Your task to perform on an android device: turn off javascript in the chrome app Image 0: 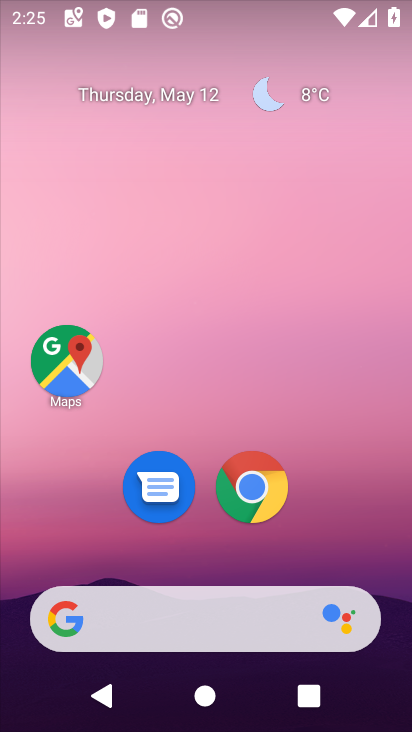
Step 0: click (256, 480)
Your task to perform on an android device: turn off javascript in the chrome app Image 1: 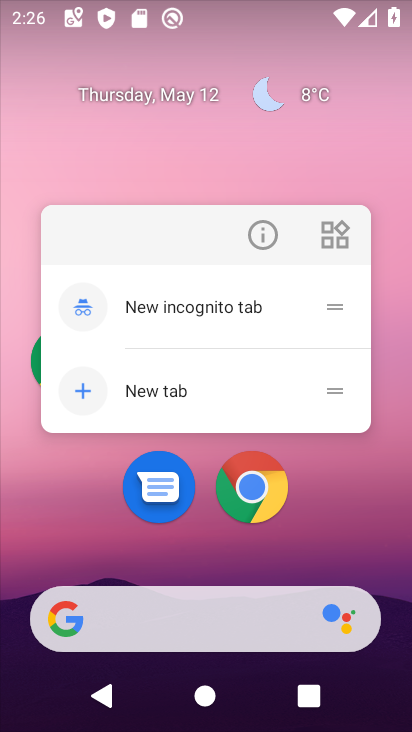
Step 1: click (259, 488)
Your task to perform on an android device: turn off javascript in the chrome app Image 2: 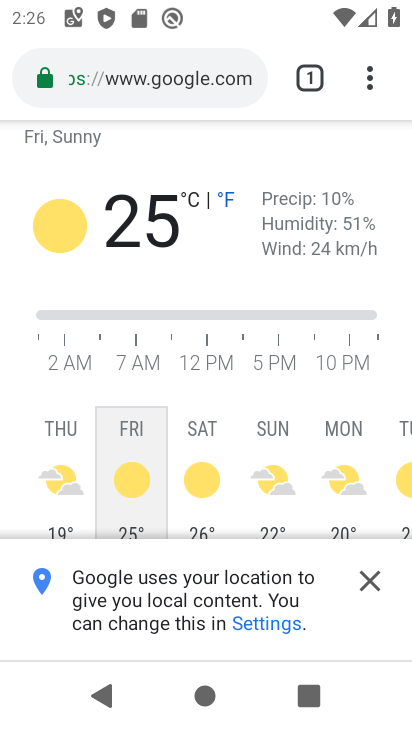
Step 2: drag from (370, 85) to (91, 549)
Your task to perform on an android device: turn off javascript in the chrome app Image 3: 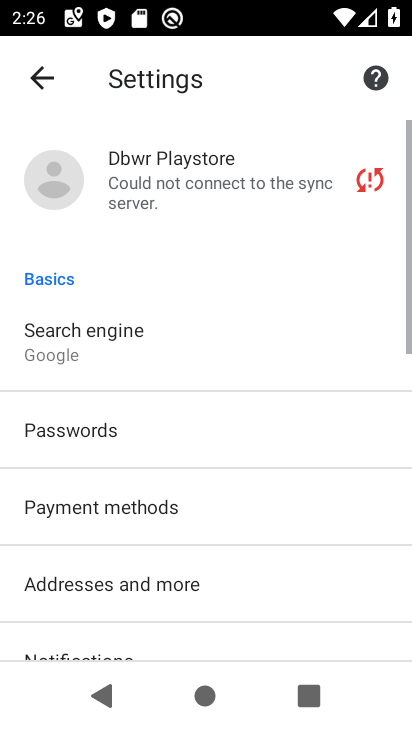
Step 3: drag from (283, 567) to (260, 132)
Your task to perform on an android device: turn off javascript in the chrome app Image 4: 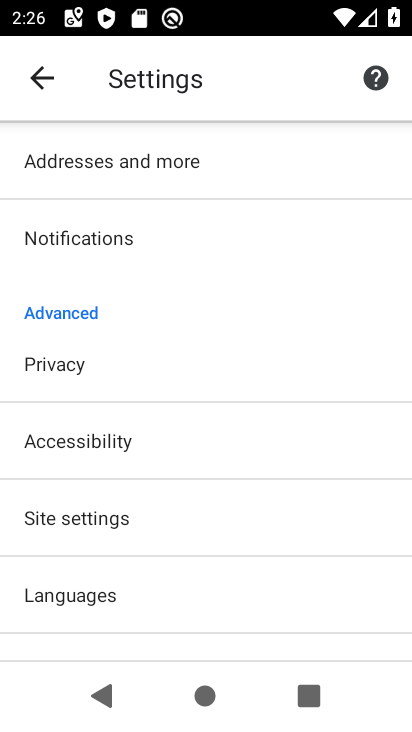
Step 4: click (103, 517)
Your task to perform on an android device: turn off javascript in the chrome app Image 5: 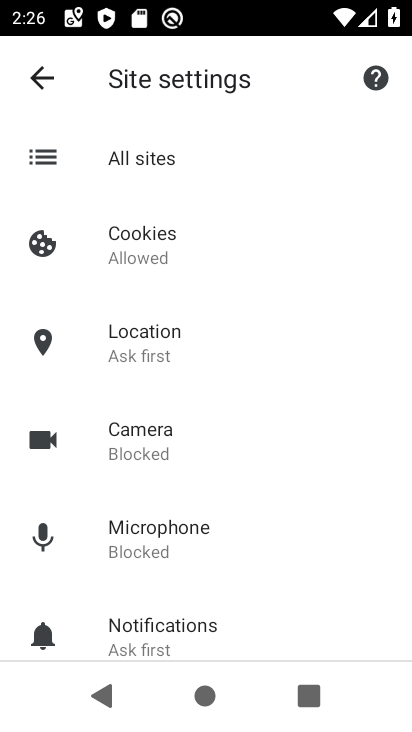
Step 5: drag from (252, 591) to (229, 173)
Your task to perform on an android device: turn off javascript in the chrome app Image 6: 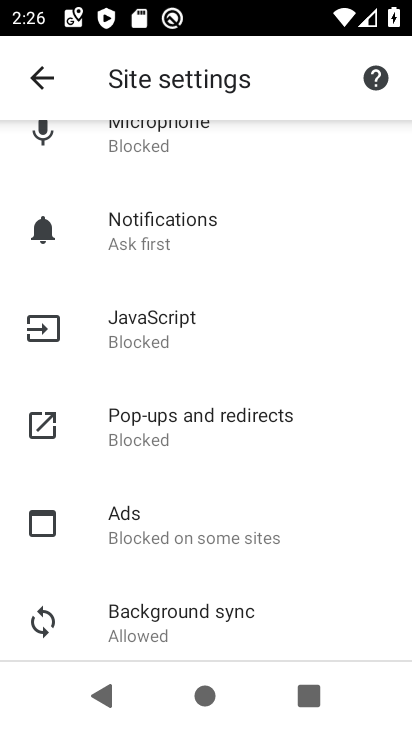
Step 6: click (152, 321)
Your task to perform on an android device: turn off javascript in the chrome app Image 7: 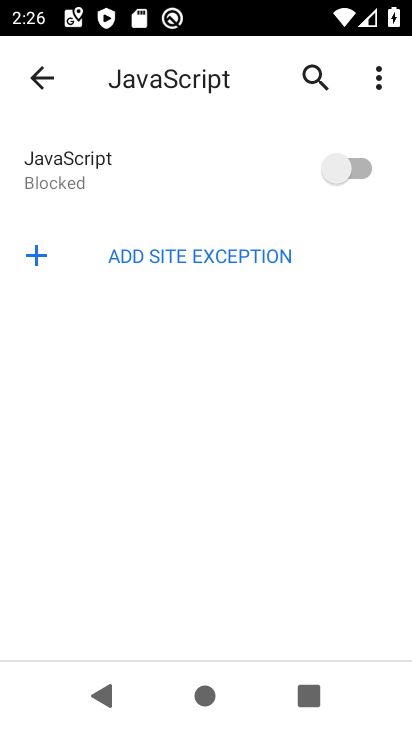
Step 7: task complete